Your task to perform on an android device: What's on the menu at Burger King? Image 0: 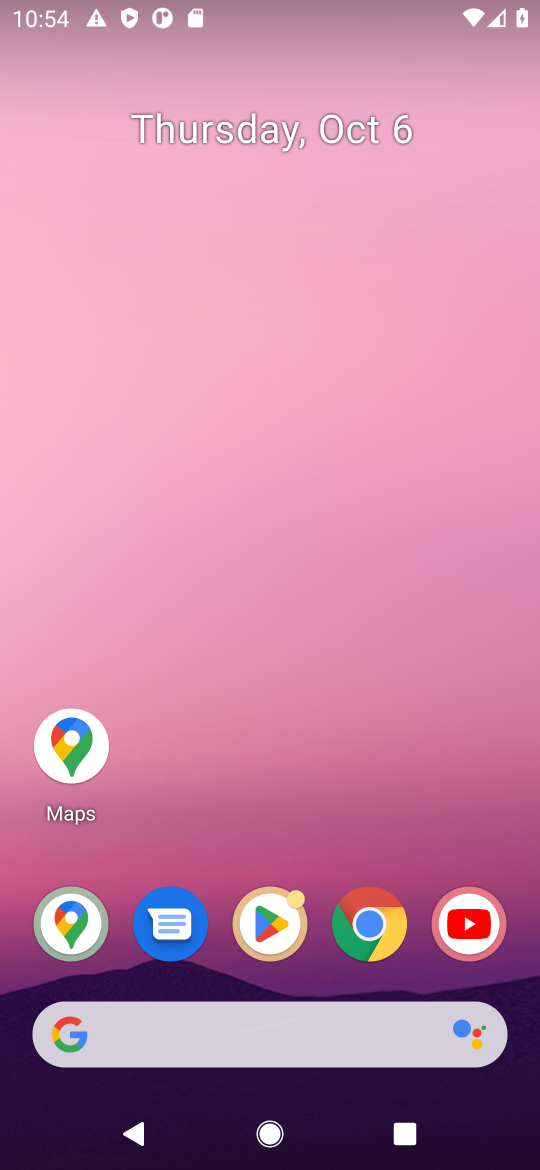
Step 0: click (369, 938)
Your task to perform on an android device: What's on the menu at Burger King? Image 1: 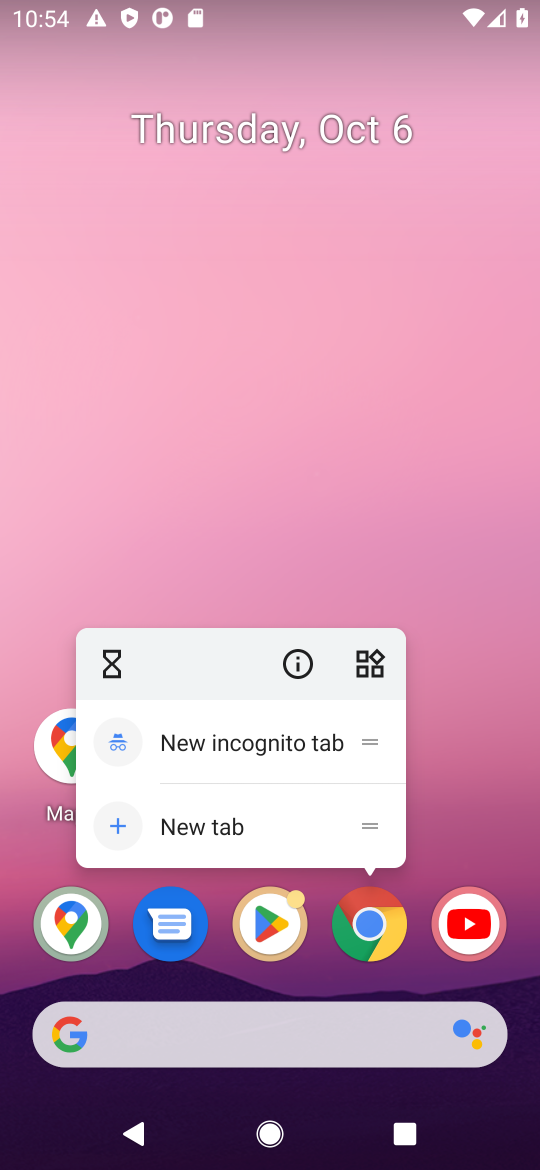
Step 1: click (364, 927)
Your task to perform on an android device: What's on the menu at Burger King? Image 2: 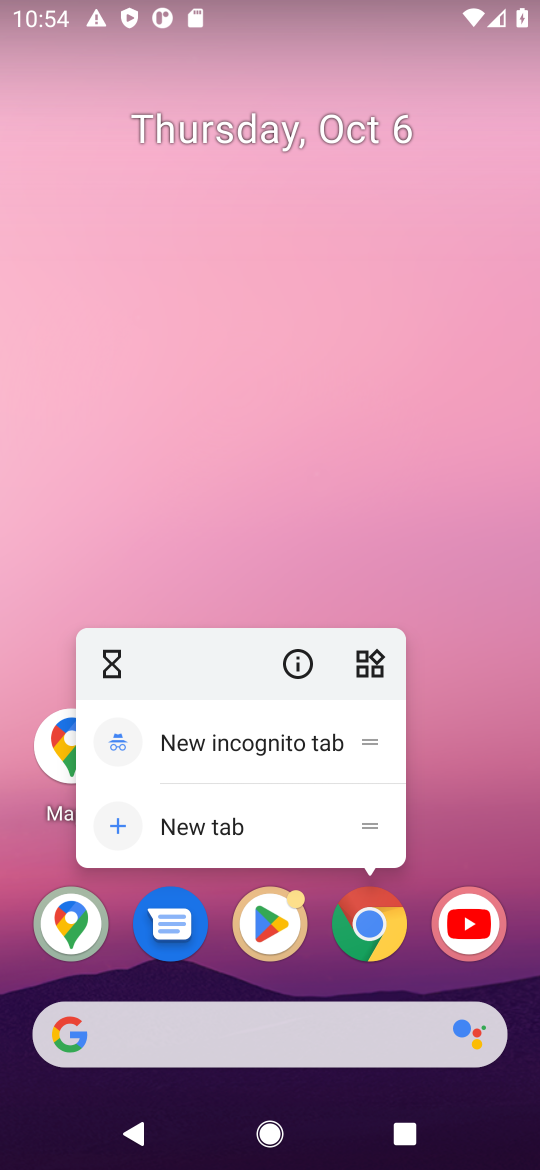
Step 2: click (364, 933)
Your task to perform on an android device: What's on the menu at Burger King? Image 3: 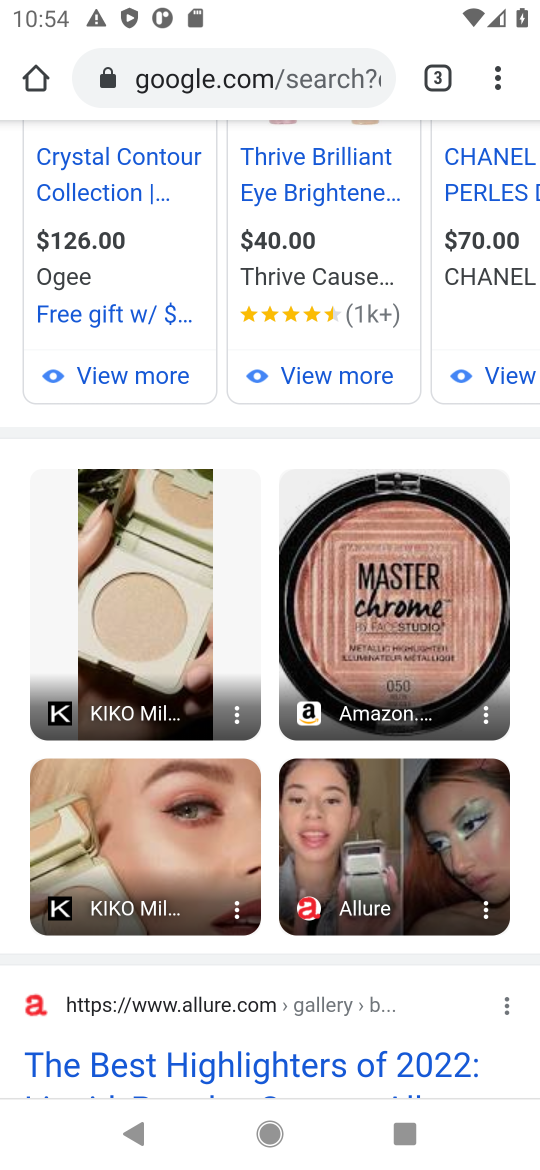
Step 3: click (270, 76)
Your task to perform on an android device: What's on the menu at Burger King? Image 4: 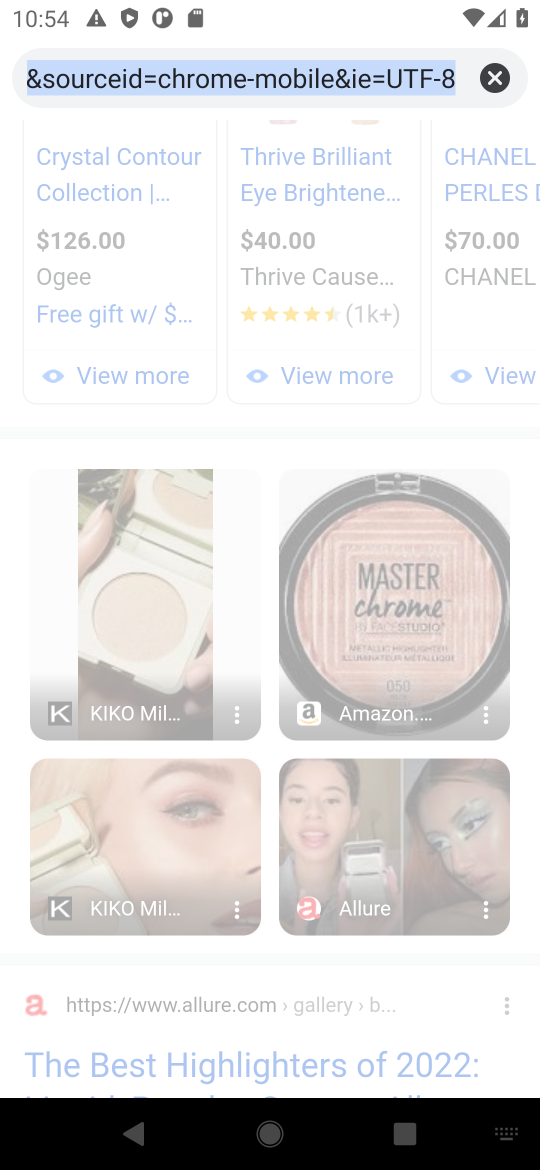
Step 4: click (490, 71)
Your task to perform on an android device: What's on the menu at Burger King? Image 5: 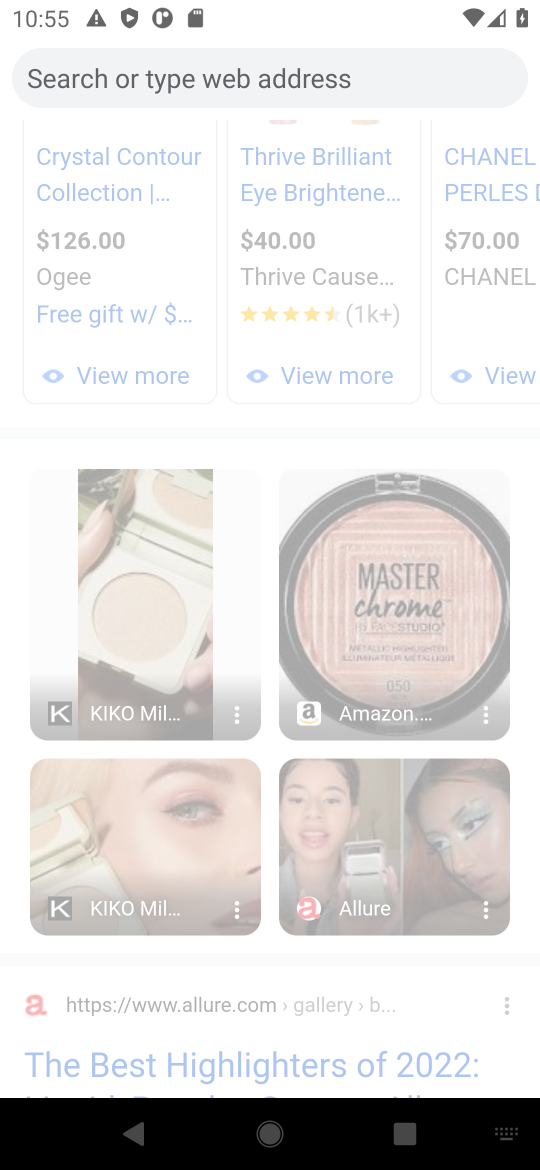
Step 5: type "menu at Burger King"
Your task to perform on an android device: What's on the menu at Burger King? Image 6: 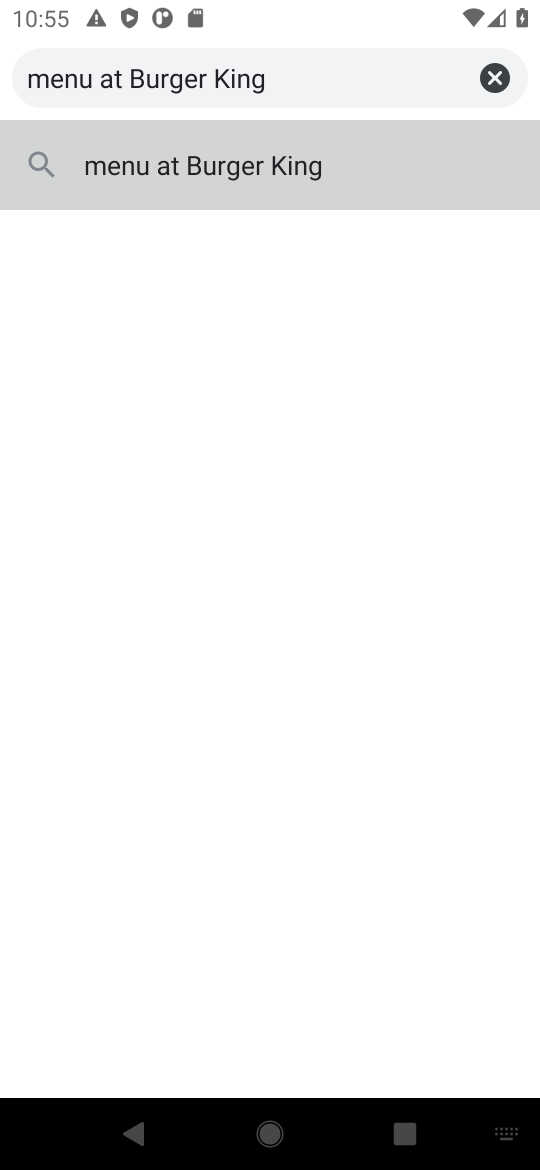
Step 6: click (158, 168)
Your task to perform on an android device: What's on the menu at Burger King? Image 7: 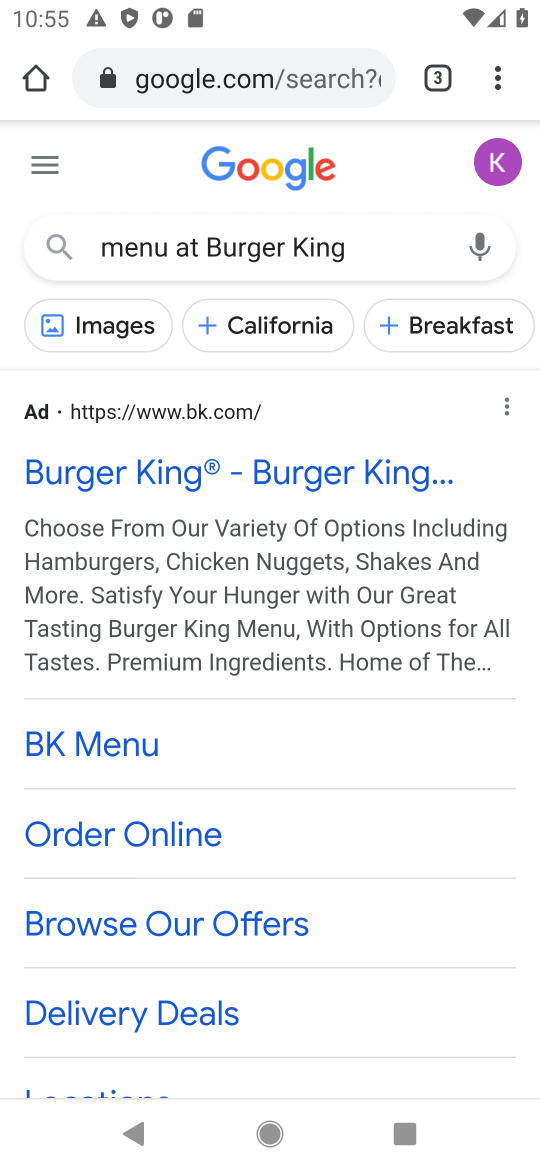
Step 7: drag from (310, 866) to (498, 209)
Your task to perform on an android device: What's on the menu at Burger King? Image 8: 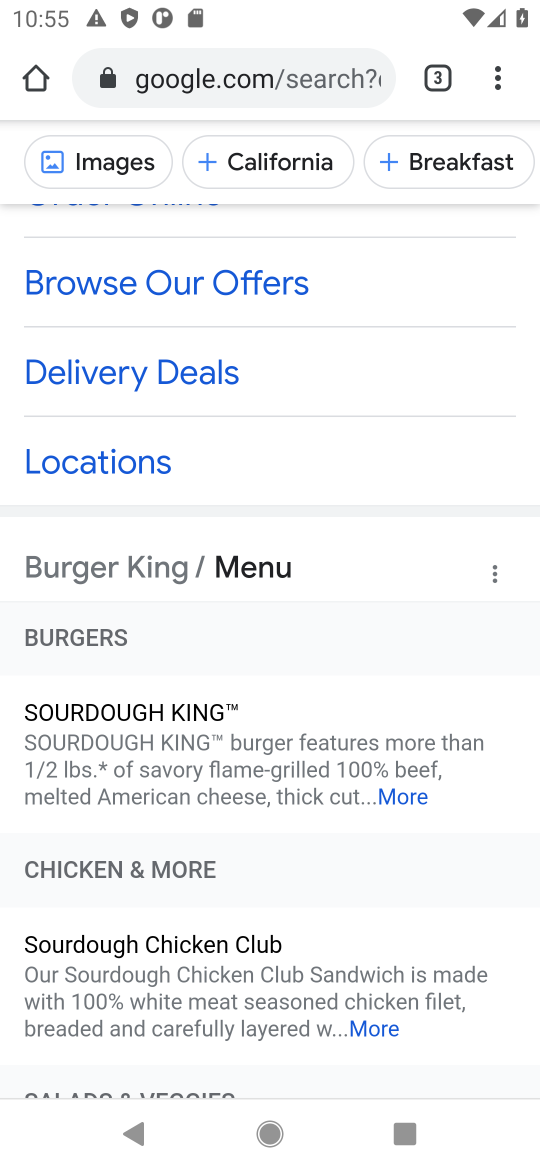
Step 8: drag from (260, 701) to (418, 158)
Your task to perform on an android device: What's on the menu at Burger King? Image 9: 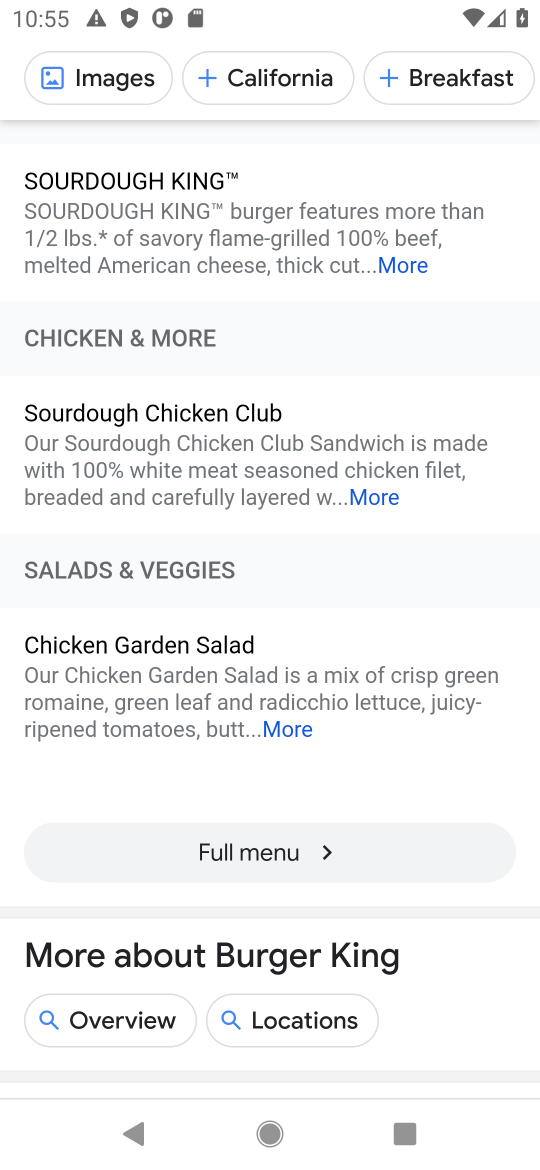
Step 9: click (274, 856)
Your task to perform on an android device: What's on the menu at Burger King? Image 10: 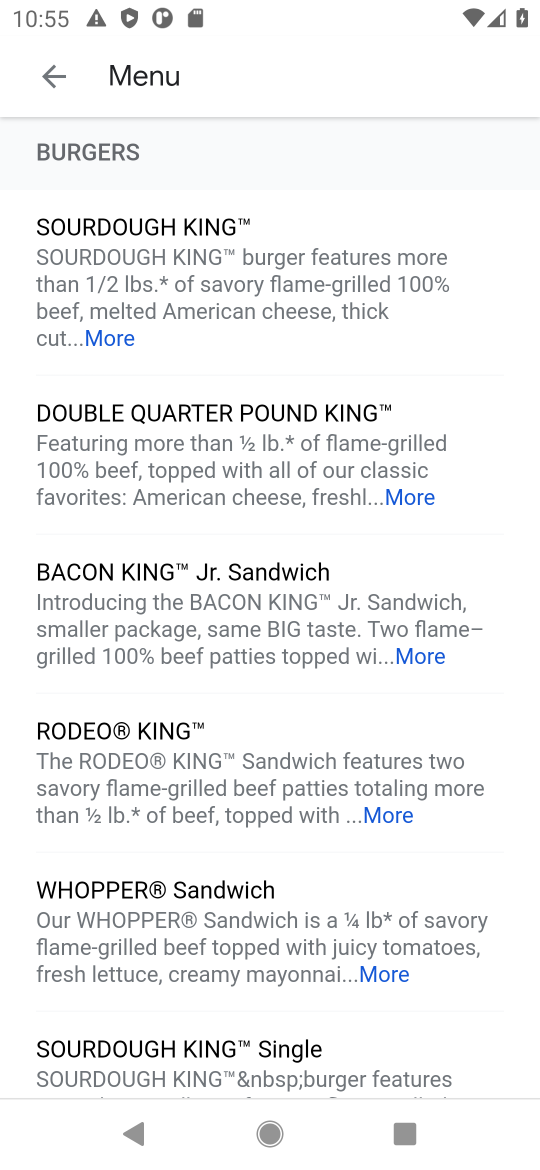
Step 10: task complete